Your task to perform on an android device: change notifications settings Image 0: 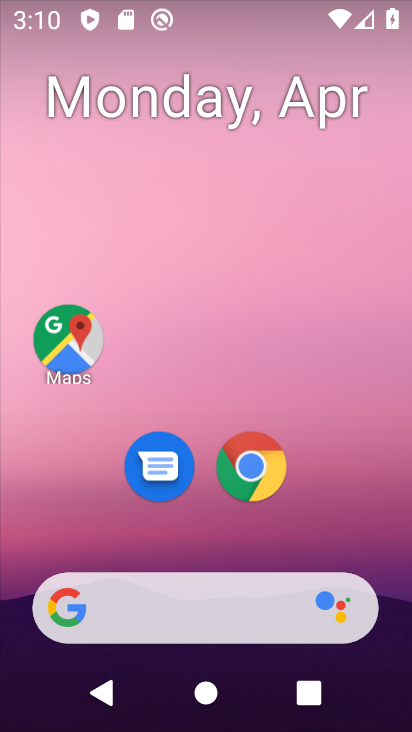
Step 0: drag from (300, 547) to (315, 187)
Your task to perform on an android device: change notifications settings Image 1: 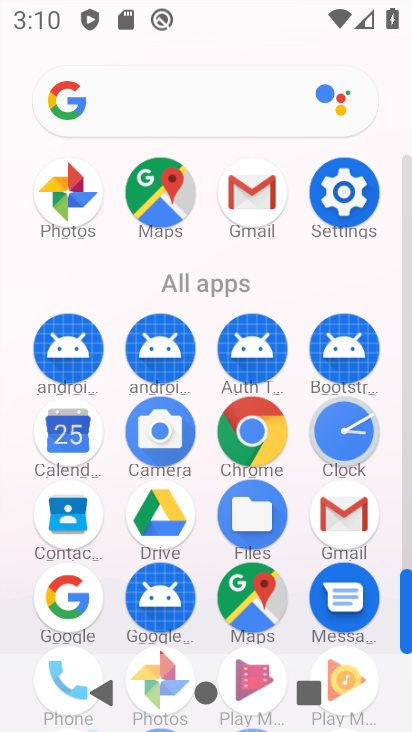
Step 1: click (348, 223)
Your task to perform on an android device: change notifications settings Image 2: 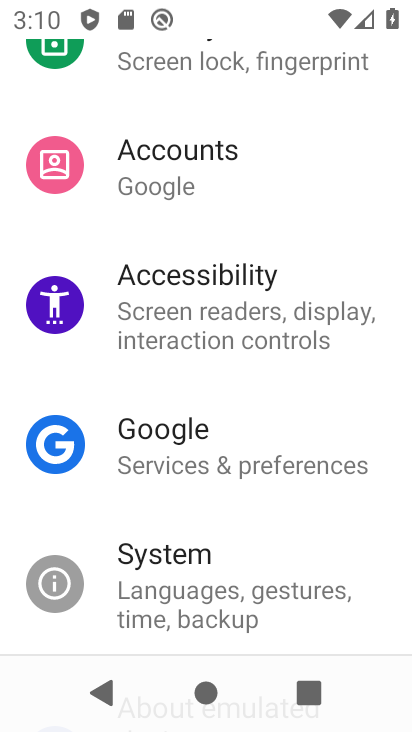
Step 2: drag from (261, 229) to (287, 577)
Your task to perform on an android device: change notifications settings Image 3: 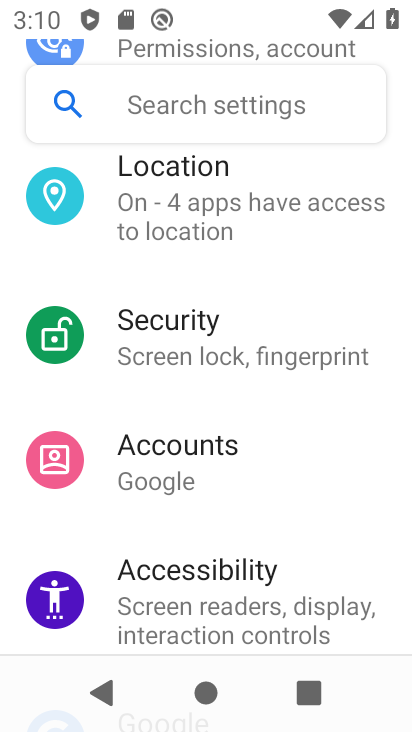
Step 3: drag from (292, 300) to (261, 582)
Your task to perform on an android device: change notifications settings Image 4: 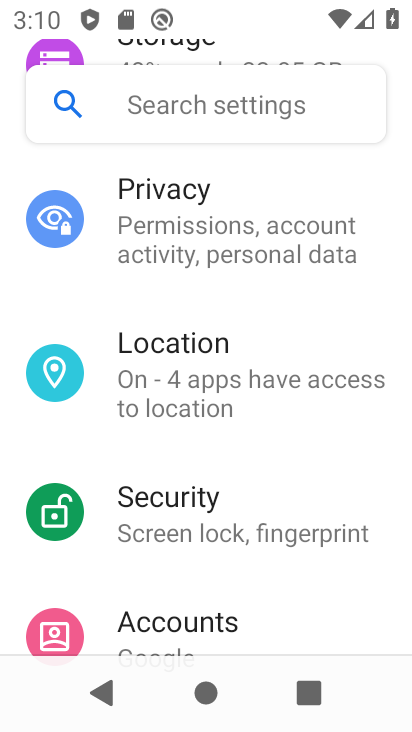
Step 4: drag from (274, 309) to (289, 612)
Your task to perform on an android device: change notifications settings Image 5: 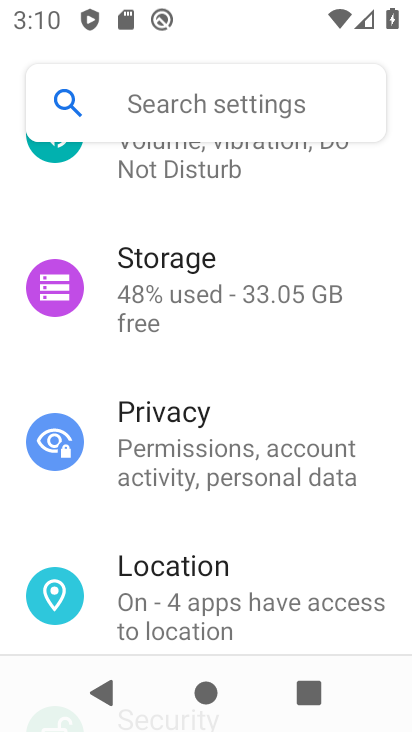
Step 5: drag from (279, 376) to (288, 646)
Your task to perform on an android device: change notifications settings Image 6: 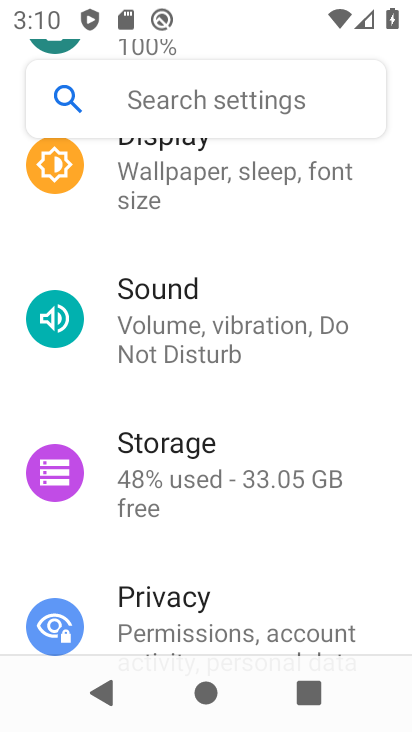
Step 6: drag from (280, 260) to (282, 681)
Your task to perform on an android device: change notifications settings Image 7: 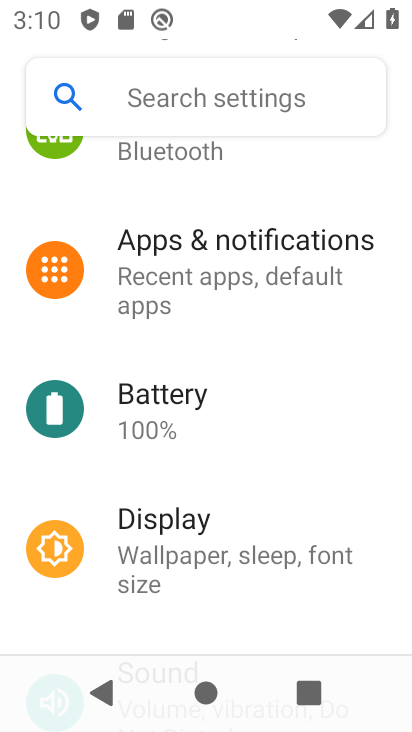
Step 7: click (276, 298)
Your task to perform on an android device: change notifications settings Image 8: 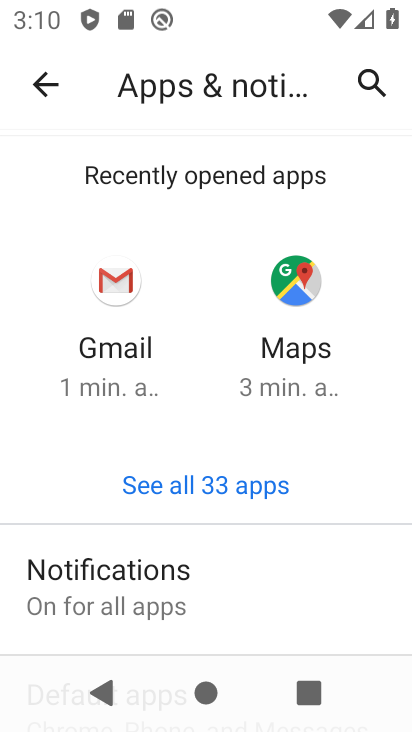
Step 8: click (214, 599)
Your task to perform on an android device: change notifications settings Image 9: 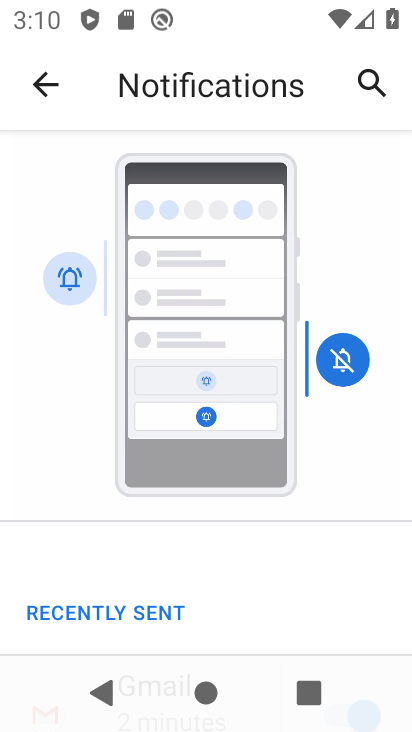
Step 9: drag from (295, 526) to (322, 120)
Your task to perform on an android device: change notifications settings Image 10: 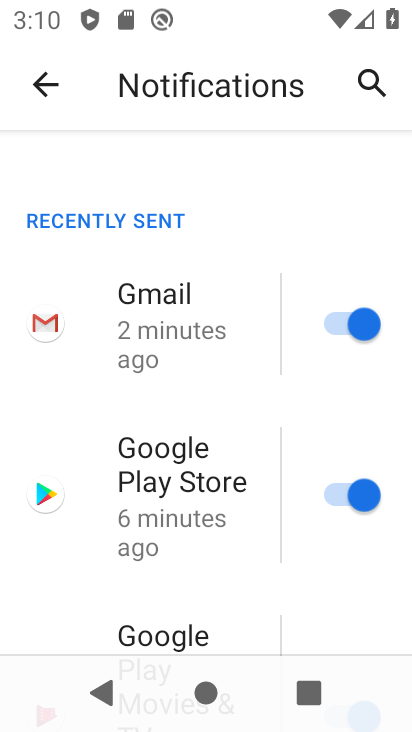
Step 10: click (342, 493)
Your task to perform on an android device: change notifications settings Image 11: 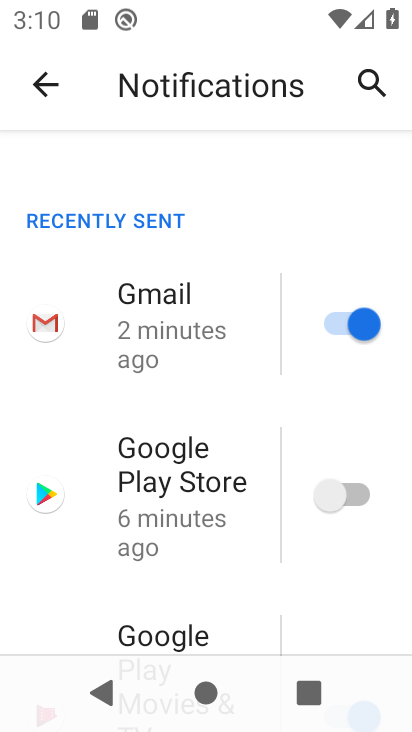
Step 11: task complete